Your task to perform on an android device: remove spam from my inbox in the gmail app Image 0: 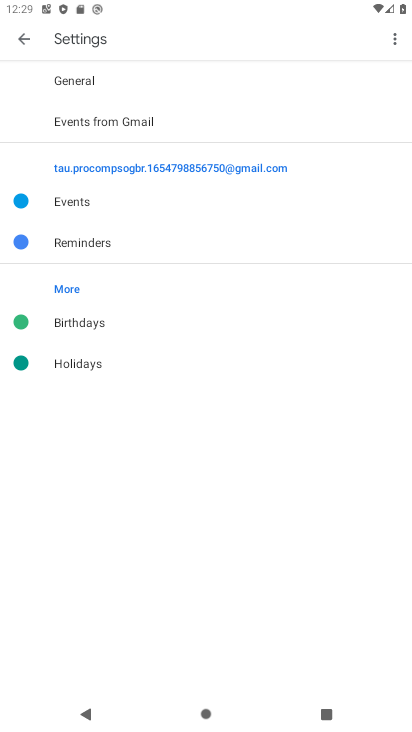
Step 0: press home button
Your task to perform on an android device: remove spam from my inbox in the gmail app Image 1: 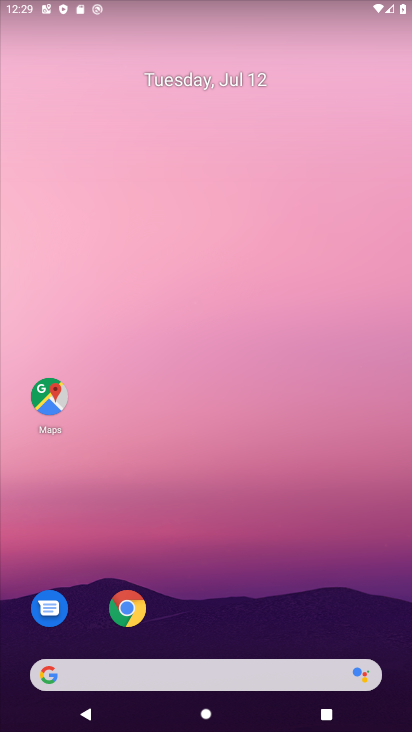
Step 1: drag from (208, 615) to (222, 102)
Your task to perform on an android device: remove spam from my inbox in the gmail app Image 2: 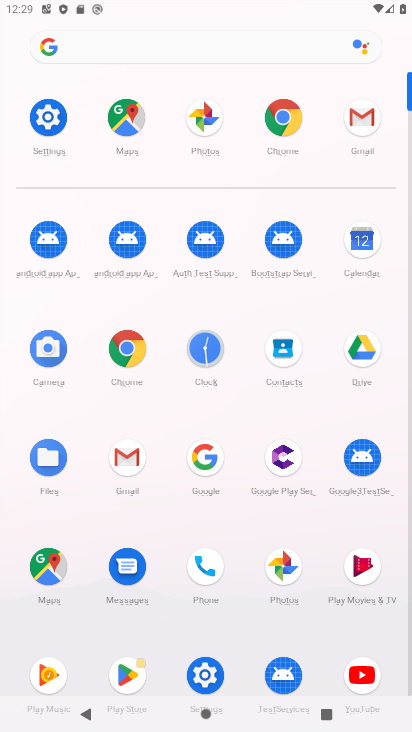
Step 2: click (363, 128)
Your task to perform on an android device: remove spam from my inbox in the gmail app Image 3: 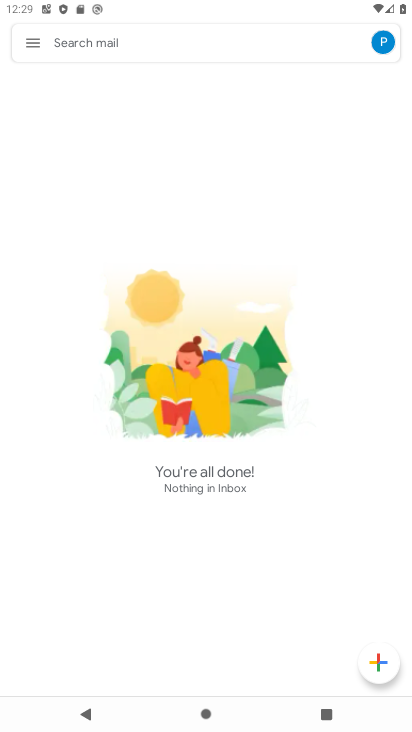
Step 3: click (43, 47)
Your task to perform on an android device: remove spam from my inbox in the gmail app Image 4: 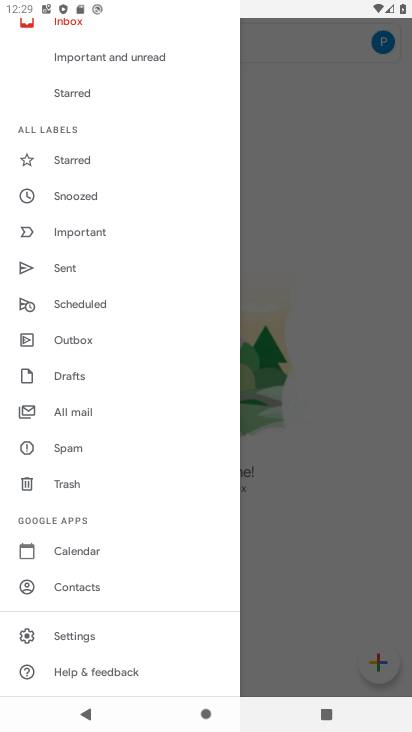
Step 4: click (66, 461)
Your task to perform on an android device: remove spam from my inbox in the gmail app Image 5: 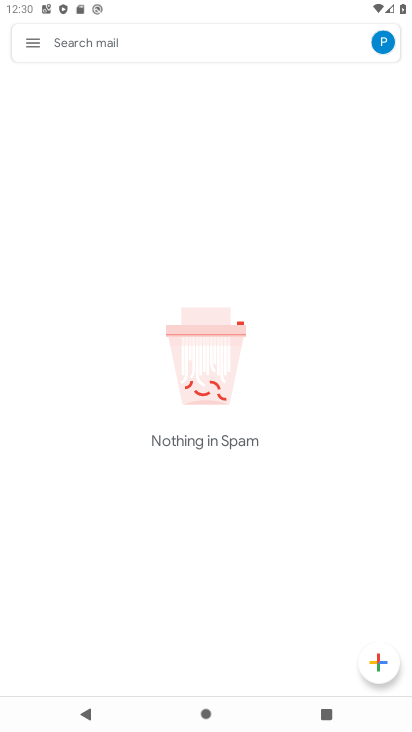
Step 5: task complete